Your task to perform on an android device: turn on translation in the chrome app Image 0: 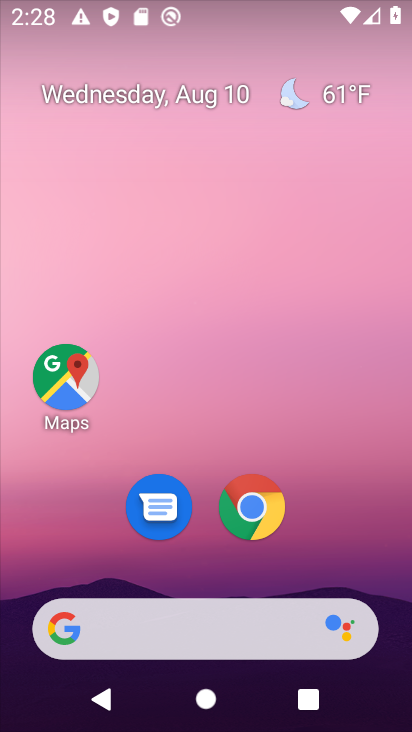
Step 0: drag from (348, 530) to (349, 27)
Your task to perform on an android device: turn on translation in the chrome app Image 1: 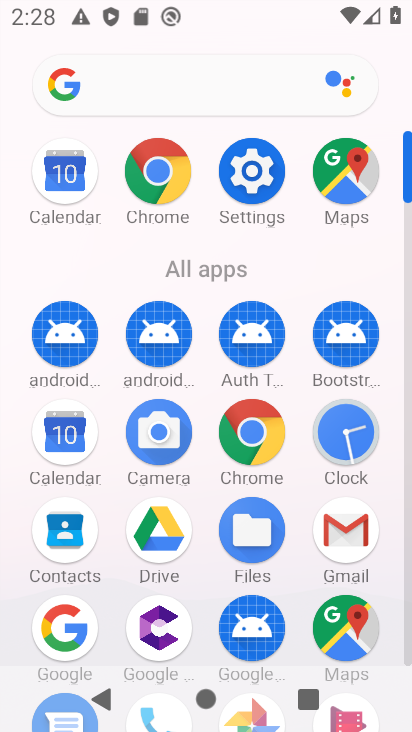
Step 1: click (241, 435)
Your task to perform on an android device: turn on translation in the chrome app Image 2: 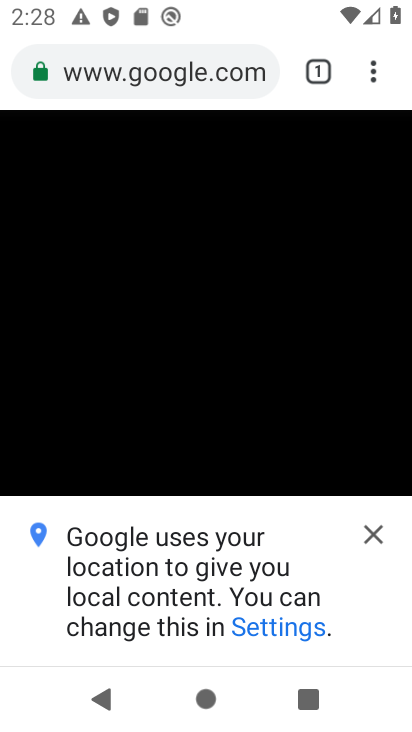
Step 2: drag from (374, 62) to (182, 506)
Your task to perform on an android device: turn on translation in the chrome app Image 3: 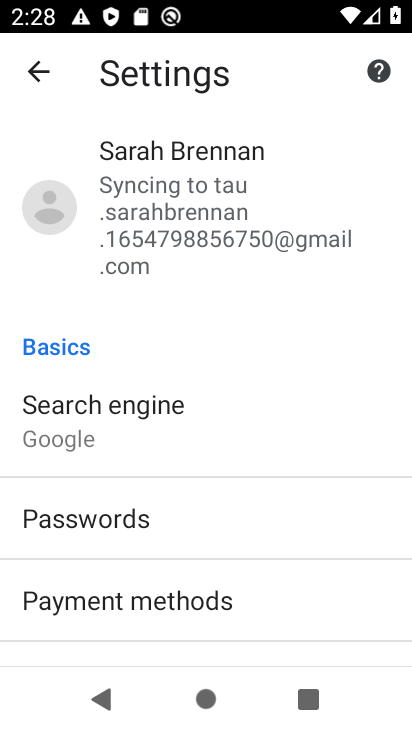
Step 3: drag from (291, 594) to (305, 128)
Your task to perform on an android device: turn on translation in the chrome app Image 4: 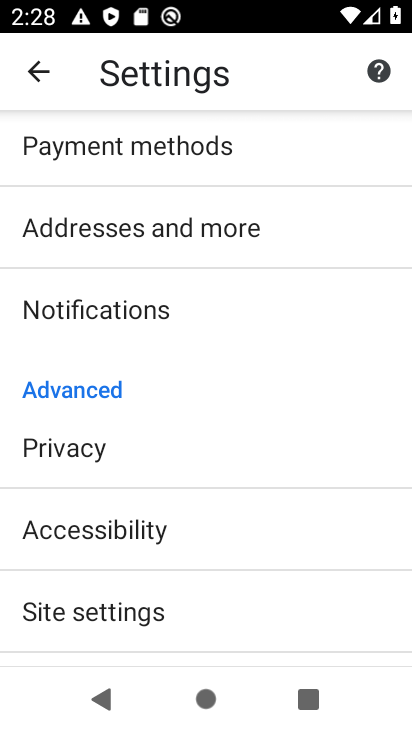
Step 4: drag from (206, 594) to (264, 155)
Your task to perform on an android device: turn on translation in the chrome app Image 5: 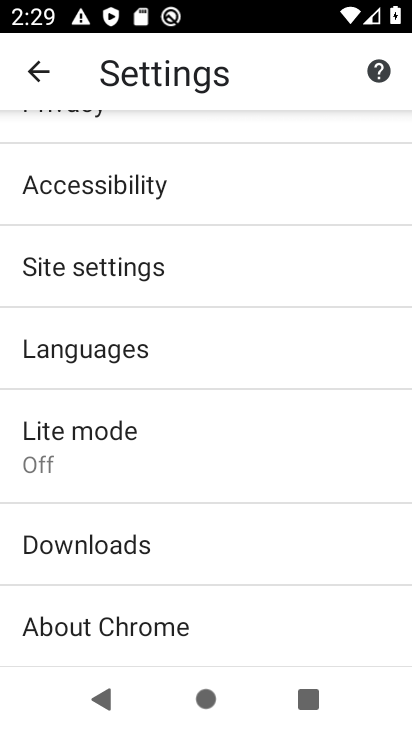
Step 5: drag from (258, 583) to (252, 507)
Your task to perform on an android device: turn on translation in the chrome app Image 6: 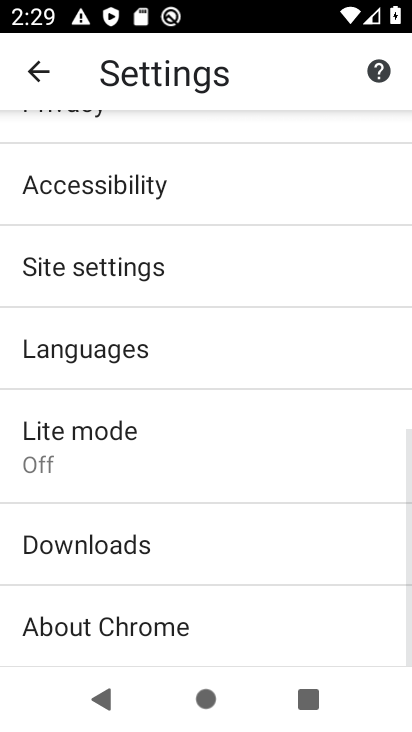
Step 6: click (111, 339)
Your task to perform on an android device: turn on translation in the chrome app Image 7: 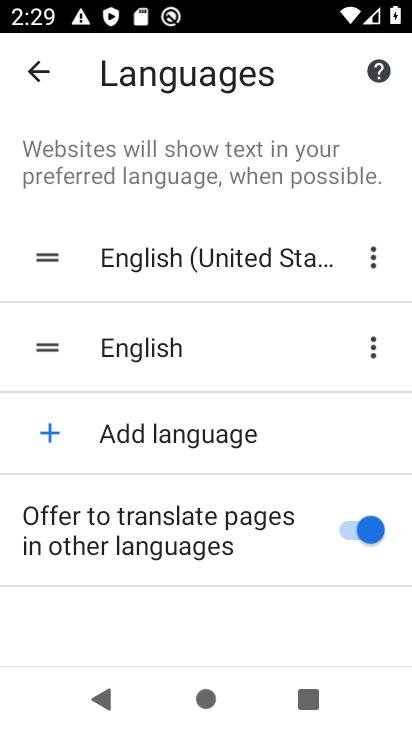
Step 7: task complete